Your task to perform on an android device: Add jbl flip 4 to the cart on ebay, then select checkout. Image 0: 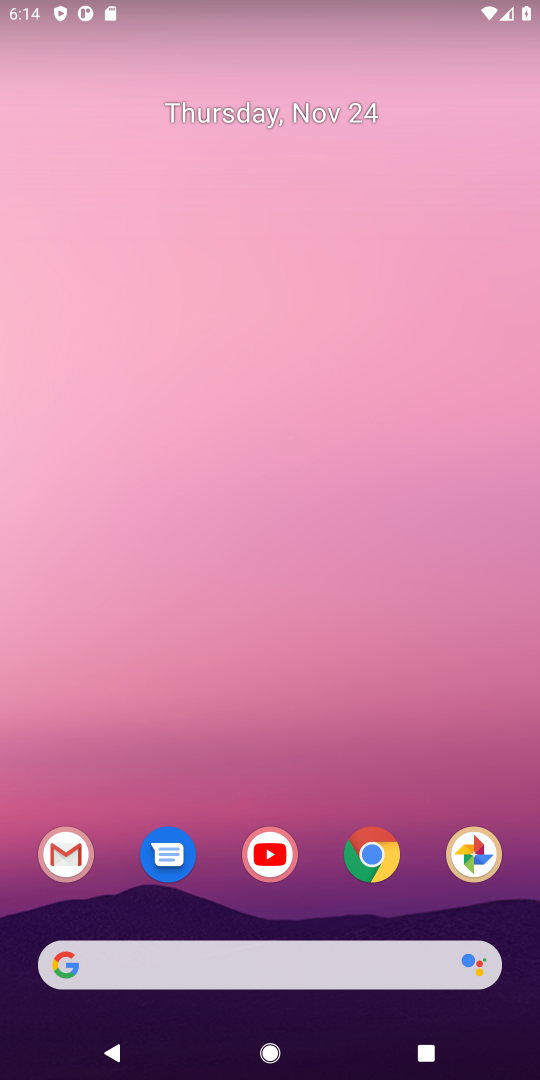
Step 0: click (372, 859)
Your task to perform on an android device: Add jbl flip 4 to the cart on ebay, then select checkout. Image 1: 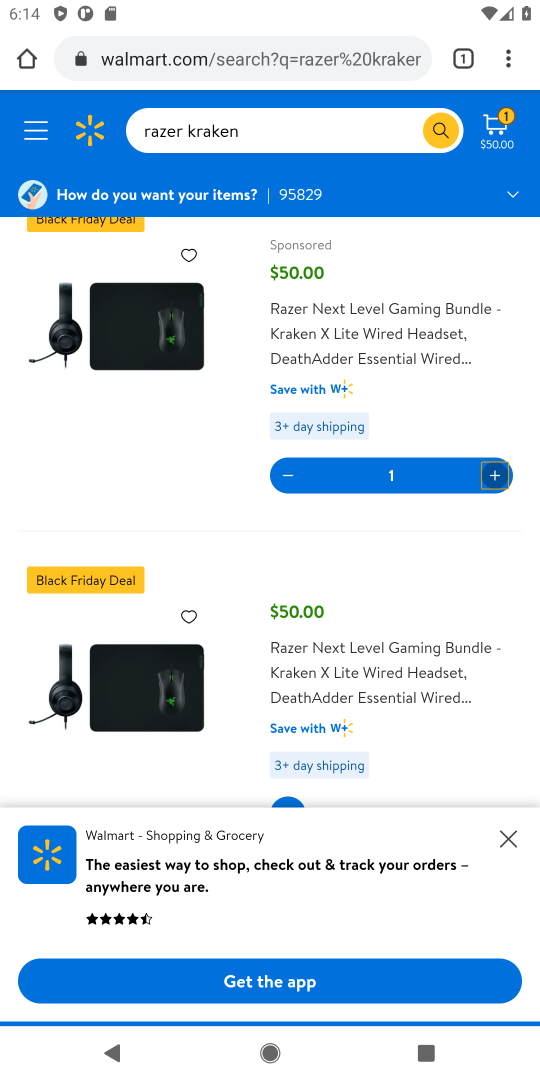
Step 1: click (246, 61)
Your task to perform on an android device: Add jbl flip 4 to the cart on ebay, then select checkout. Image 2: 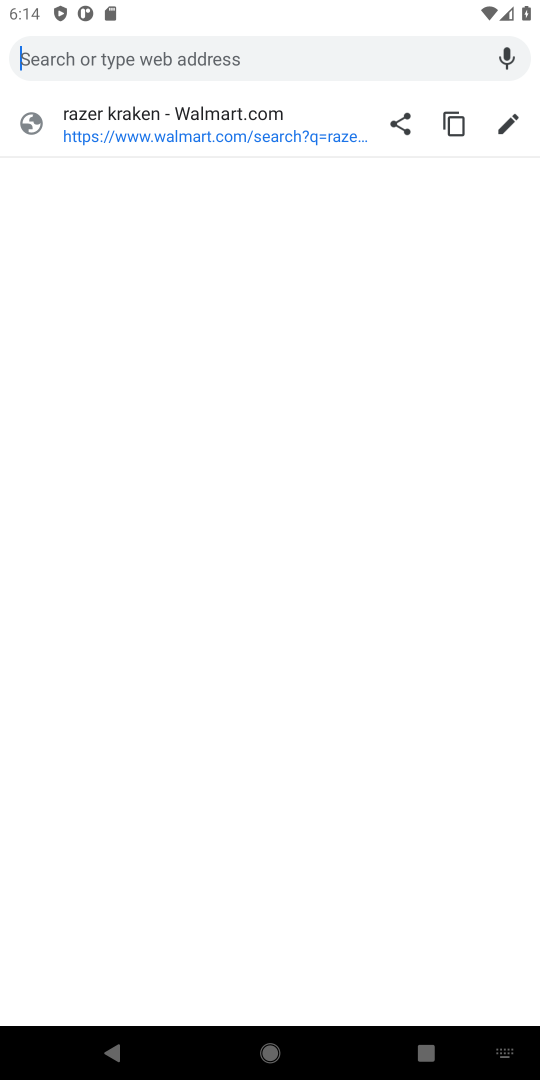
Step 2: type "ebay.com"
Your task to perform on an android device: Add jbl flip 4 to the cart on ebay, then select checkout. Image 3: 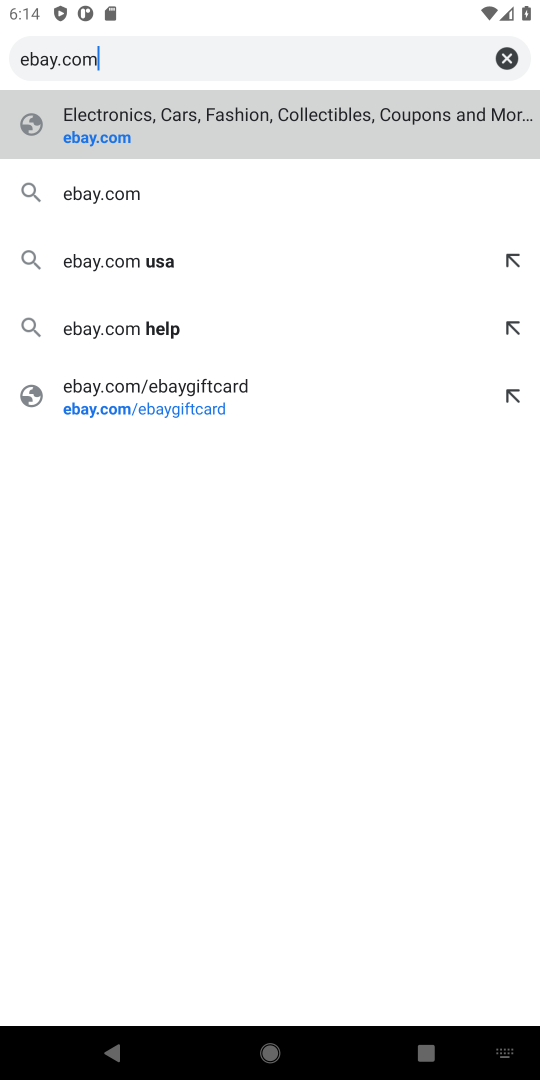
Step 3: click (106, 141)
Your task to perform on an android device: Add jbl flip 4 to the cart on ebay, then select checkout. Image 4: 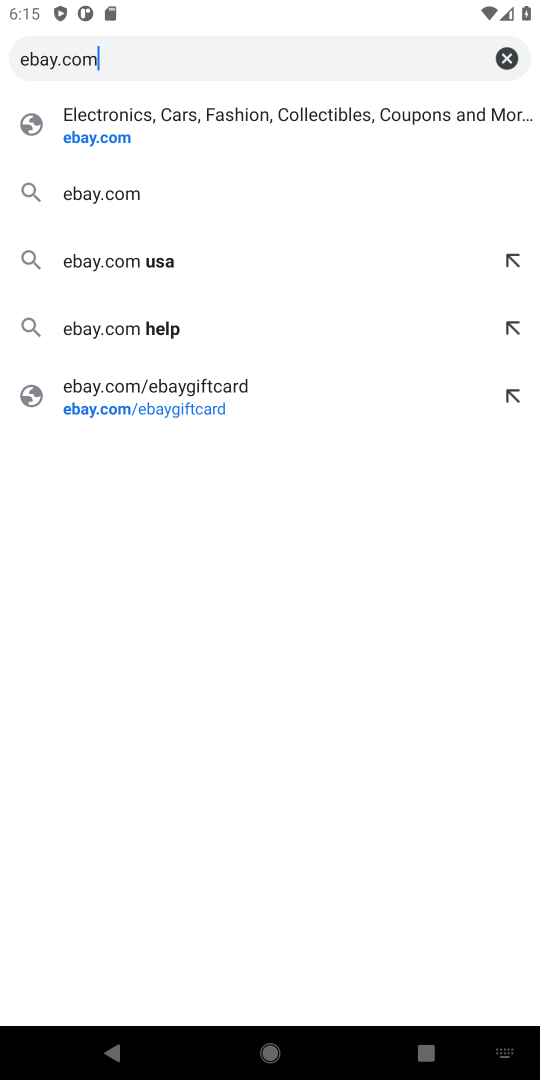
Step 4: click (113, 143)
Your task to perform on an android device: Add jbl flip 4 to the cart on ebay, then select checkout. Image 5: 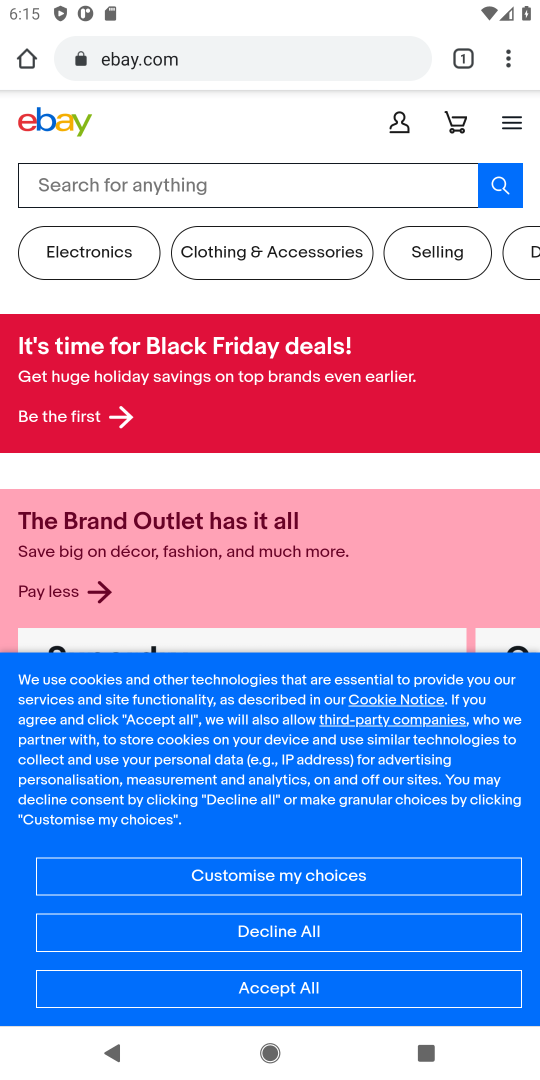
Step 5: click (153, 189)
Your task to perform on an android device: Add jbl flip 4 to the cart on ebay, then select checkout. Image 6: 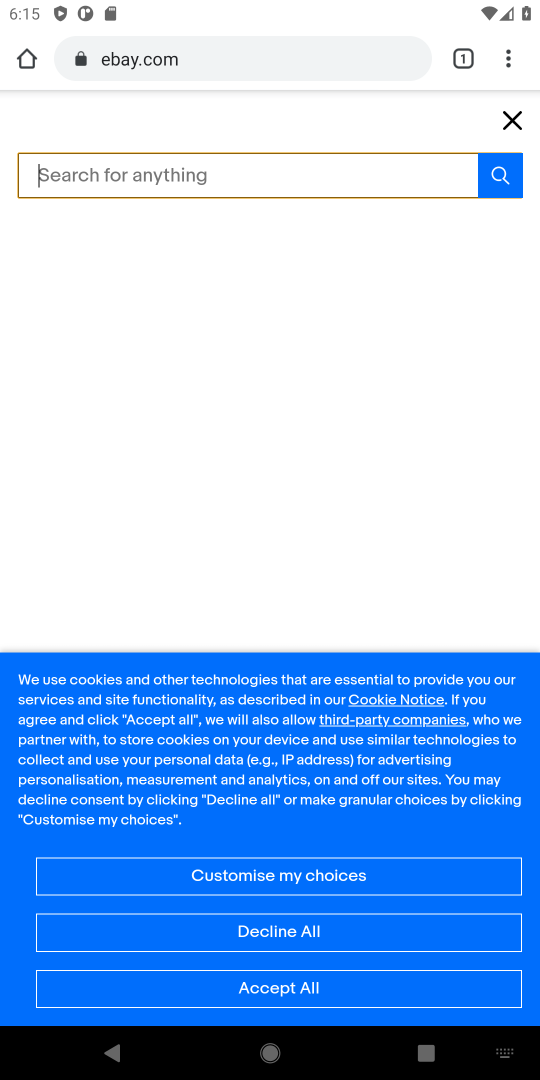
Step 6: type "jbl flip 4"
Your task to perform on an android device: Add jbl flip 4 to the cart on ebay, then select checkout. Image 7: 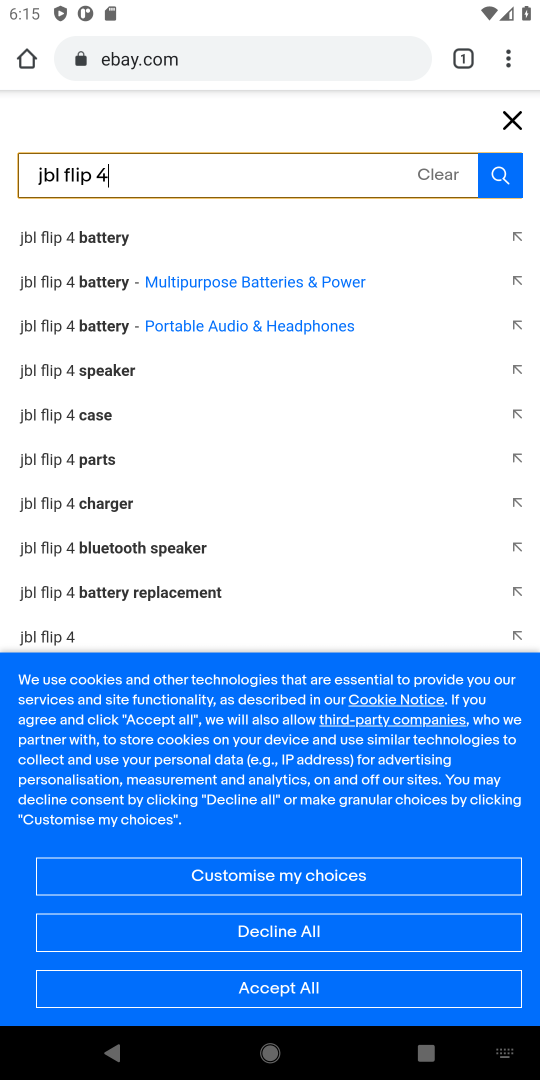
Step 7: click (64, 370)
Your task to perform on an android device: Add jbl flip 4 to the cart on ebay, then select checkout. Image 8: 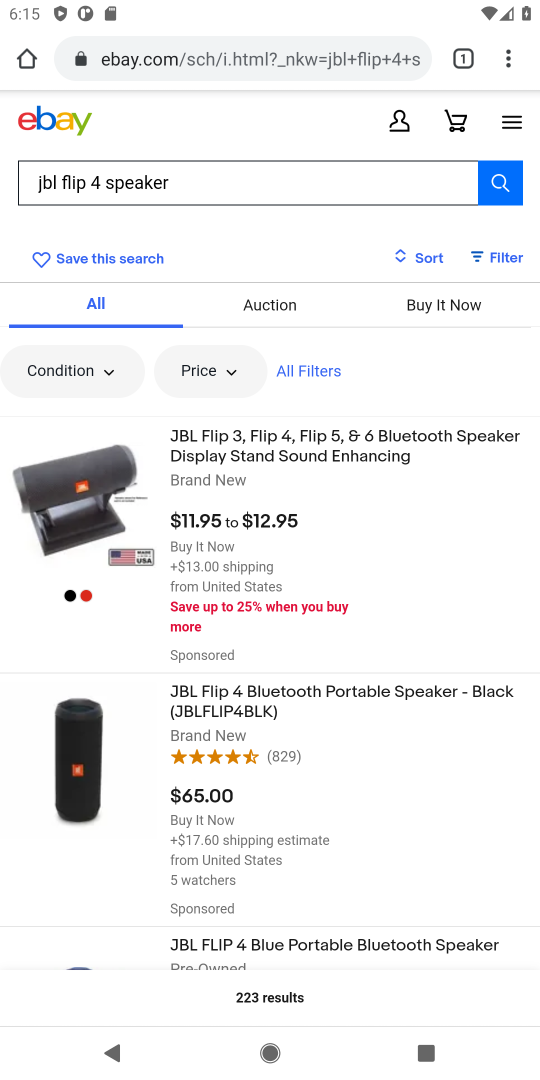
Step 8: click (71, 506)
Your task to perform on an android device: Add jbl flip 4 to the cart on ebay, then select checkout. Image 9: 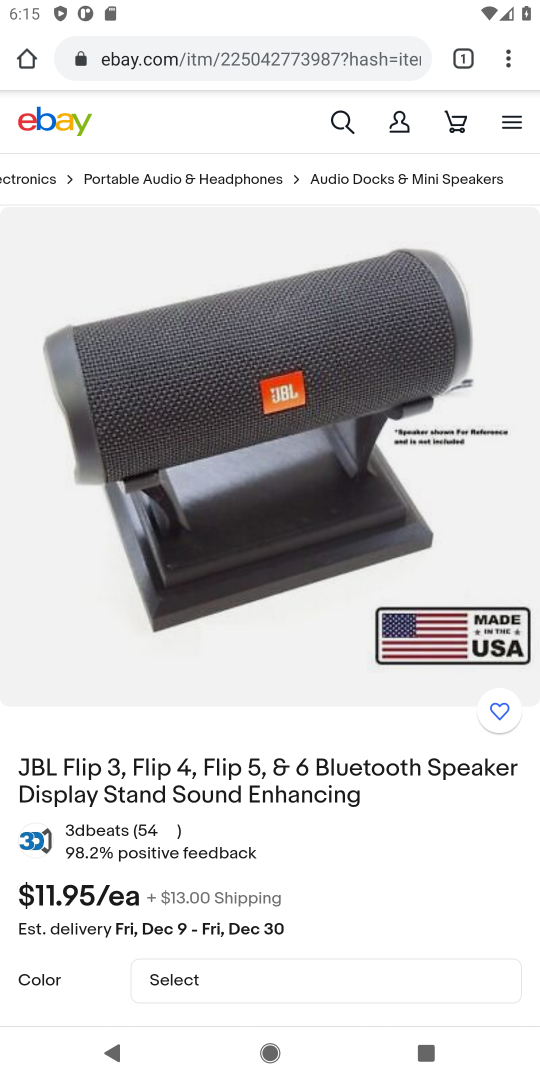
Step 9: drag from (157, 690) to (182, 279)
Your task to perform on an android device: Add jbl flip 4 to the cart on ebay, then select checkout. Image 10: 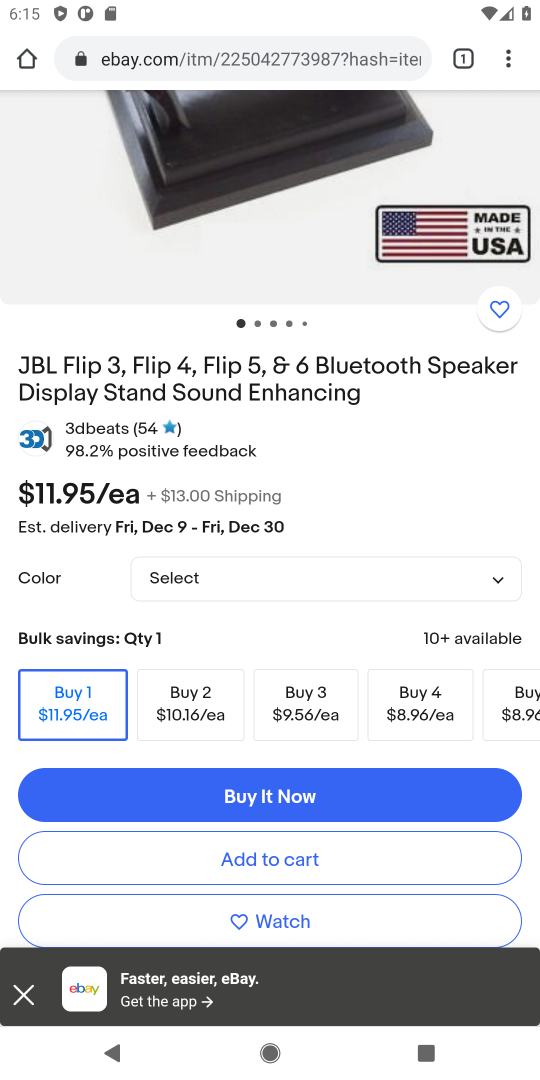
Step 10: click (238, 853)
Your task to perform on an android device: Add jbl flip 4 to the cart on ebay, then select checkout. Image 11: 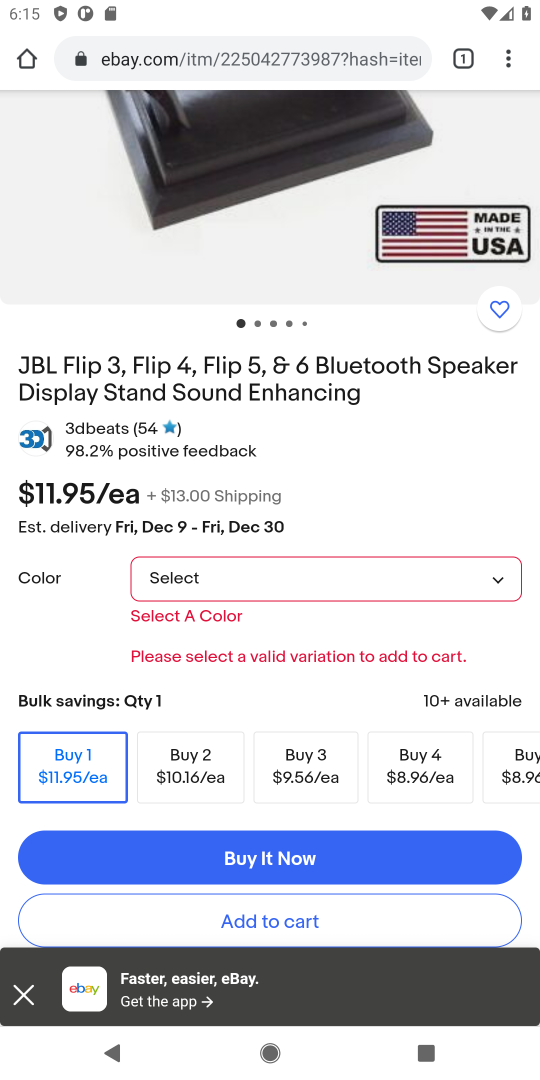
Step 11: click (506, 579)
Your task to perform on an android device: Add jbl flip 4 to the cart on ebay, then select checkout. Image 12: 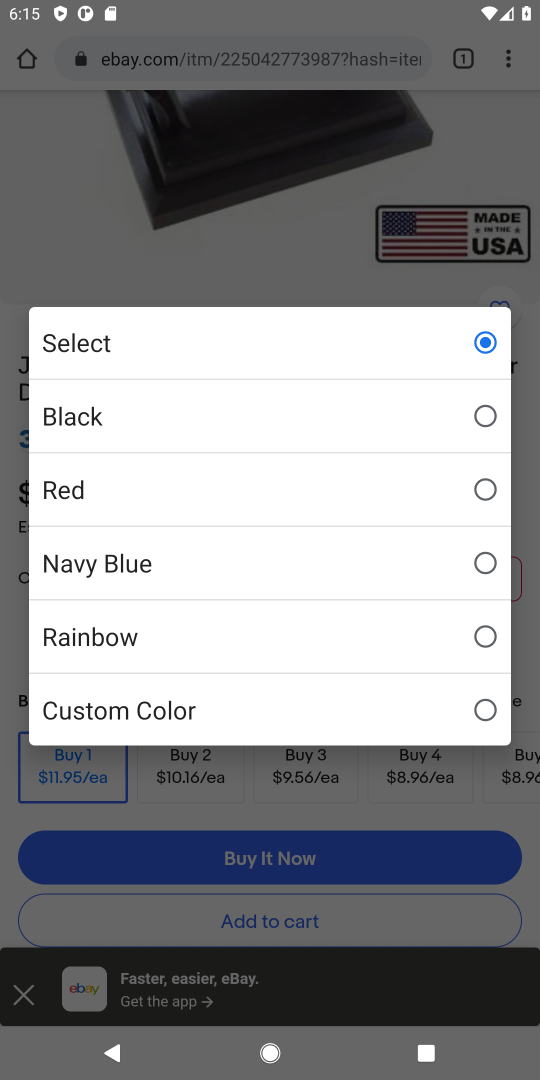
Step 12: click (49, 488)
Your task to perform on an android device: Add jbl flip 4 to the cart on ebay, then select checkout. Image 13: 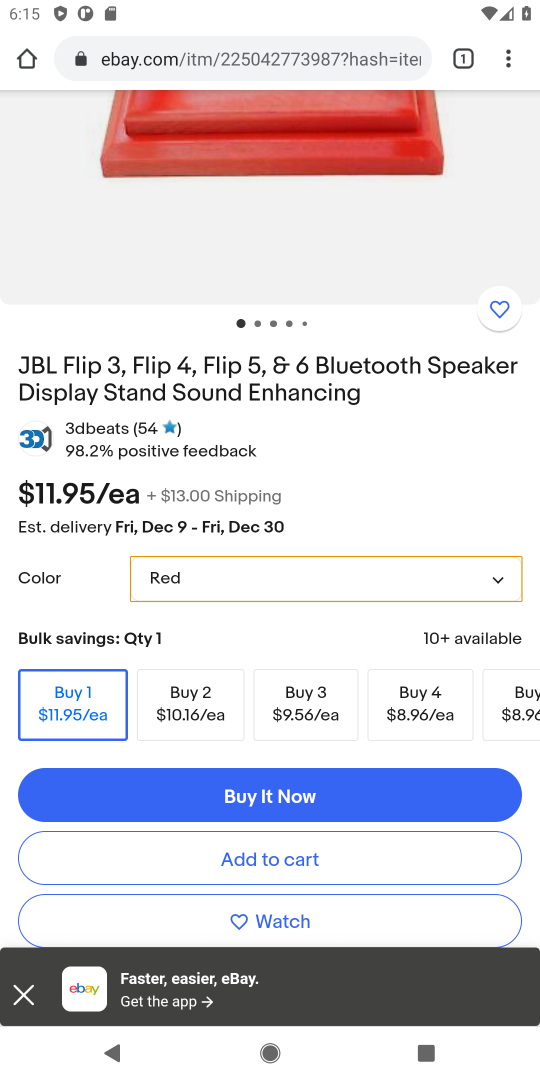
Step 13: click (248, 863)
Your task to perform on an android device: Add jbl flip 4 to the cart on ebay, then select checkout. Image 14: 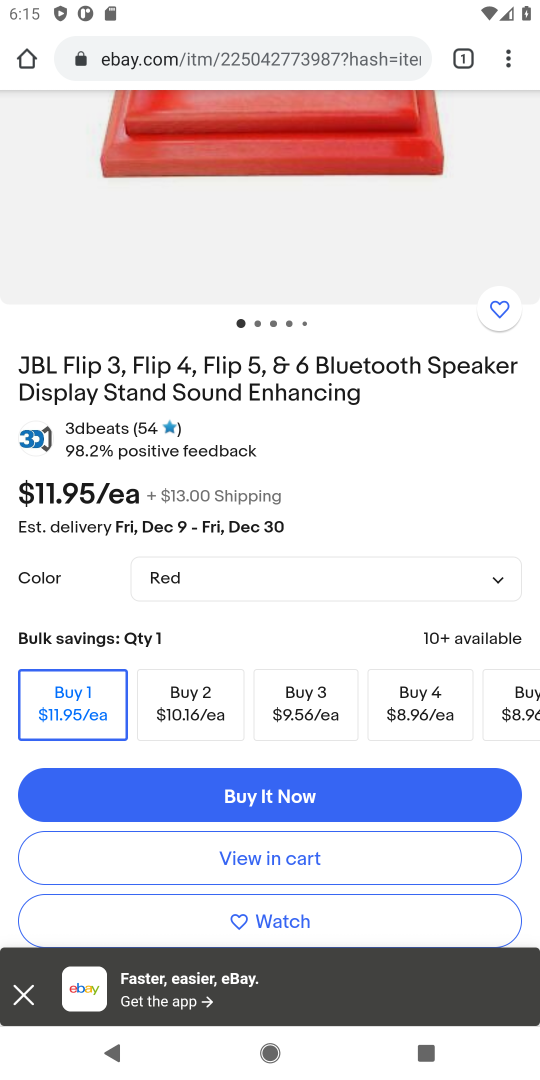
Step 14: click (248, 863)
Your task to perform on an android device: Add jbl flip 4 to the cart on ebay, then select checkout. Image 15: 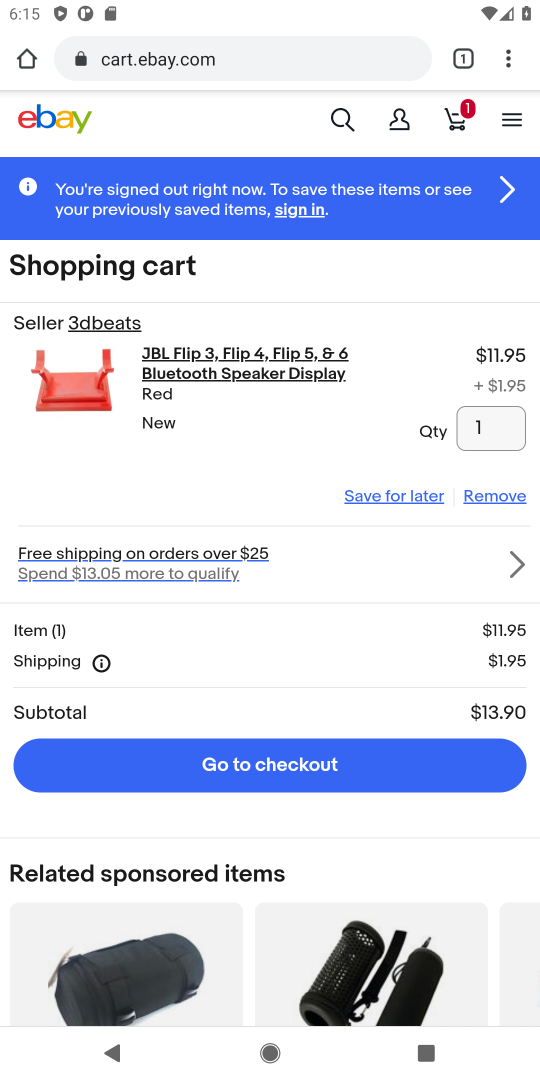
Step 15: click (268, 771)
Your task to perform on an android device: Add jbl flip 4 to the cart on ebay, then select checkout. Image 16: 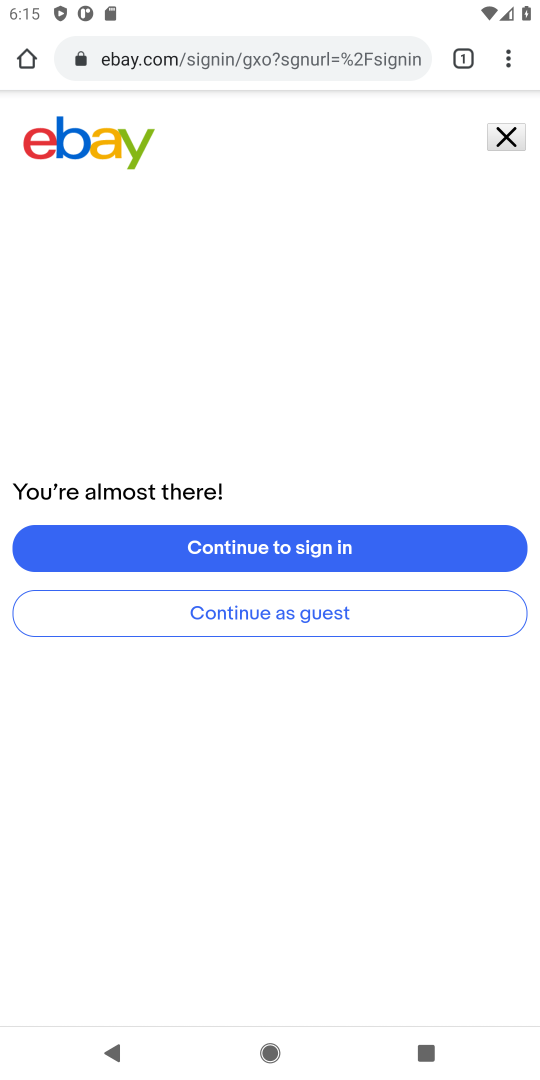
Step 16: task complete